Your task to perform on an android device: Open Google Chrome and open the bookmarks view Image 0: 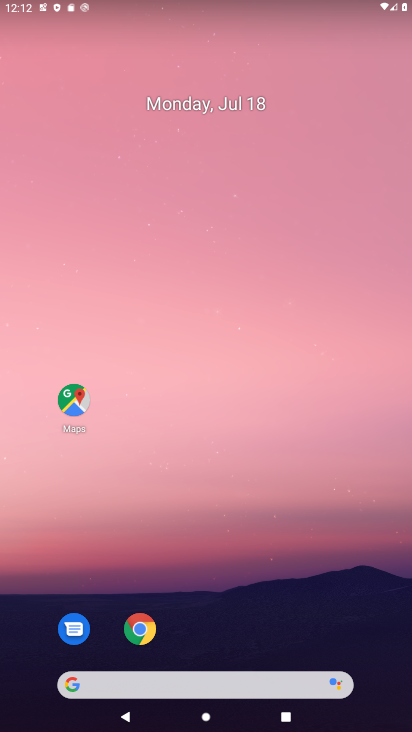
Step 0: press home button
Your task to perform on an android device: Open Google Chrome and open the bookmarks view Image 1: 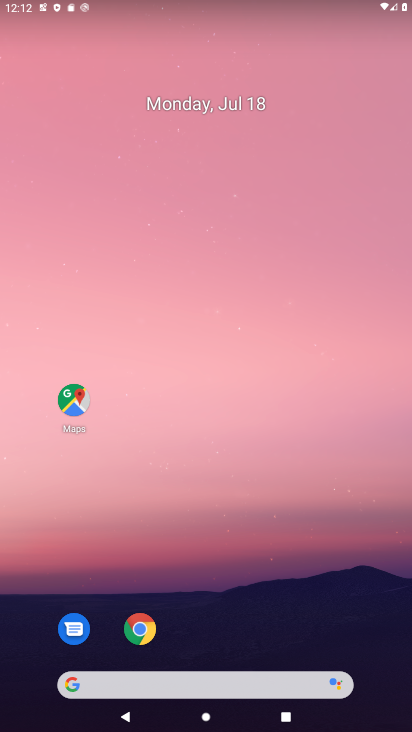
Step 1: click (132, 624)
Your task to perform on an android device: Open Google Chrome and open the bookmarks view Image 2: 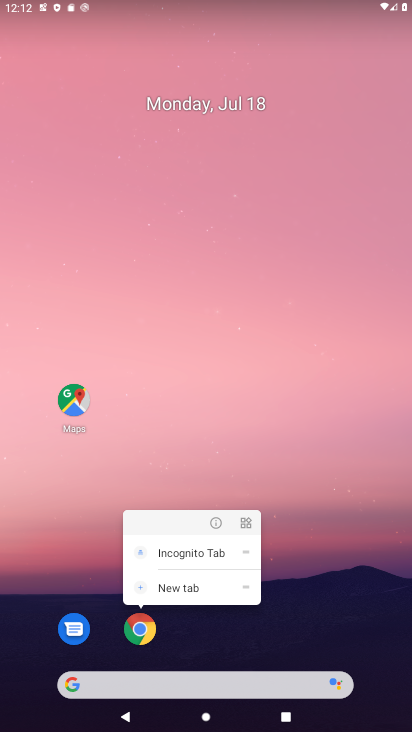
Step 2: click (137, 621)
Your task to perform on an android device: Open Google Chrome and open the bookmarks view Image 3: 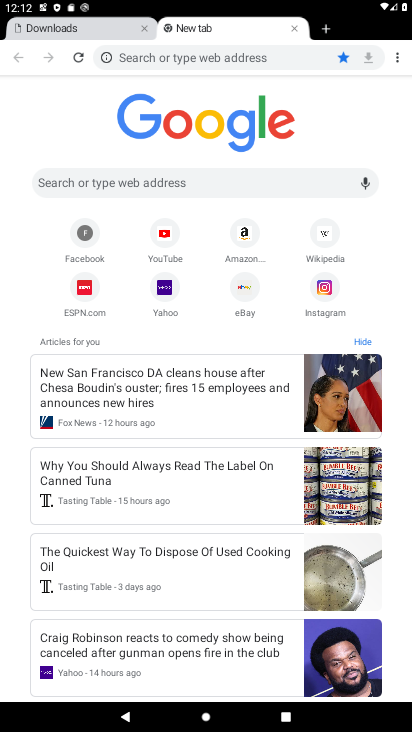
Step 3: click (396, 52)
Your task to perform on an android device: Open Google Chrome and open the bookmarks view Image 4: 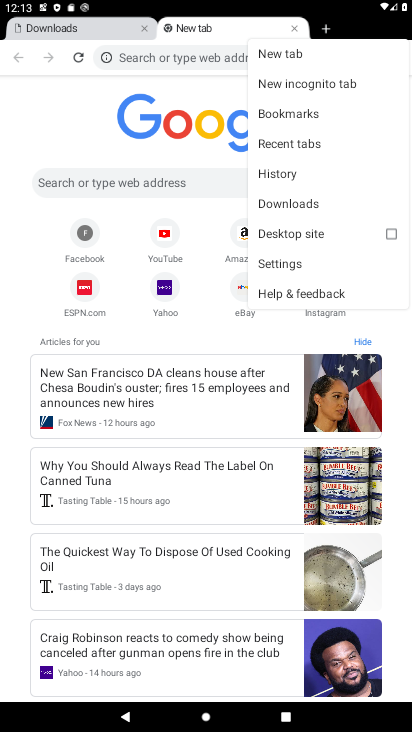
Step 4: click (322, 111)
Your task to perform on an android device: Open Google Chrome and open the bookmarks view Image 5: 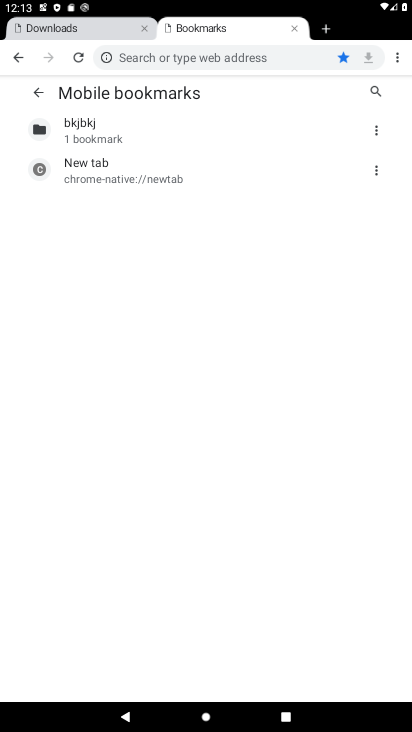
Step 5: click (377, 129)
Your task to perform on an android device: Open Google Chrome and open the bookmarks view Image 6: 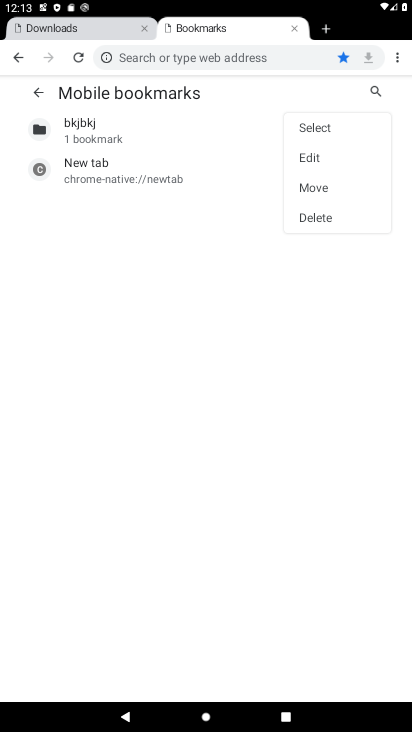
Step 6: click (201, 306)
Your task to perform on an android device: Open Google Chrome and open the bookmarks view Image 7: 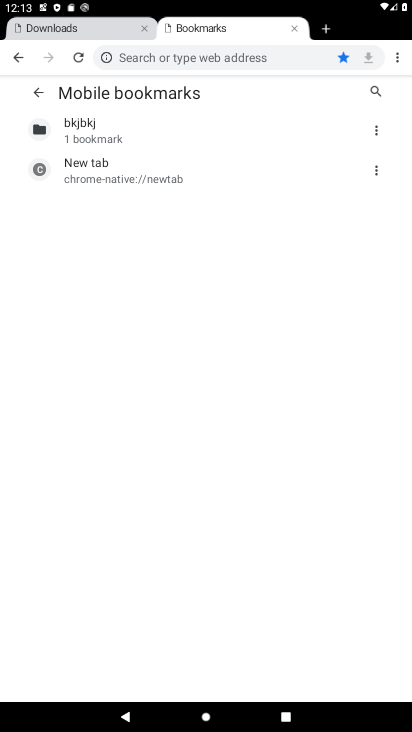
Step 7: task complete